Your task to perform on an android device: turn vacation reply on in the gmail app Image 0: 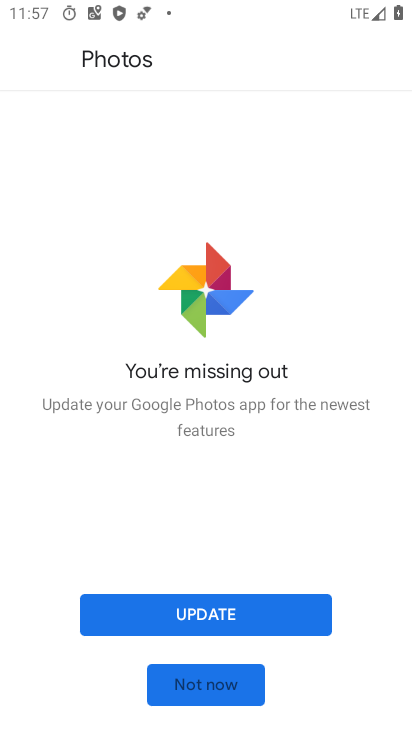
Step 0: press home button
Your task to perform on an android device: turn vacation reply on in the gmail app Image 1: 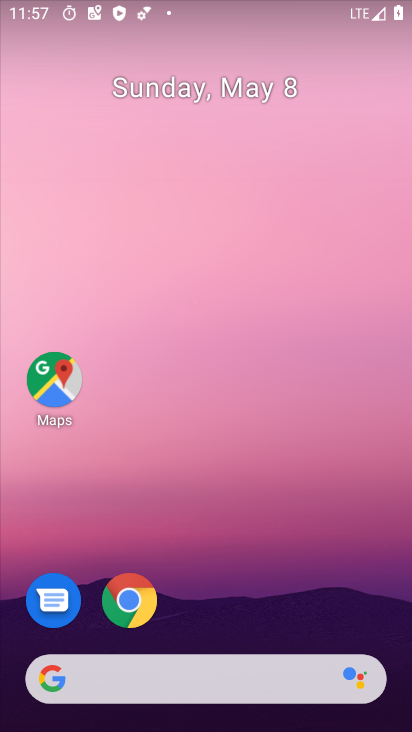
Step 1: drag from (192, 541) to (204, 168)
Your task to perform on an android device: turn vacation reply on in the gmail app Image 2: 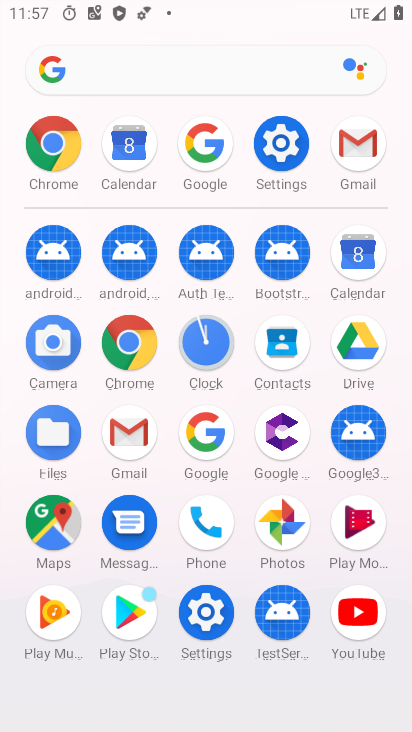
Step 2: click (110, 460)
Your task to perform on an android device: turn vacation reply on in the gmail app Image 3: 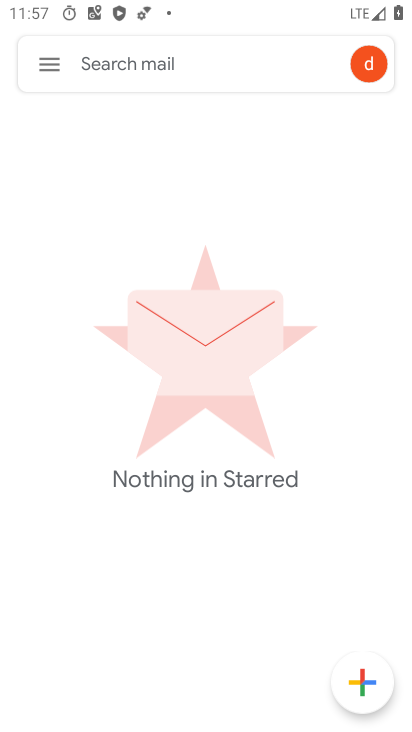
Step 3: click (48, 76)
Your task to perform on an android device: turn vacation reply on in the gmail app Image 4: 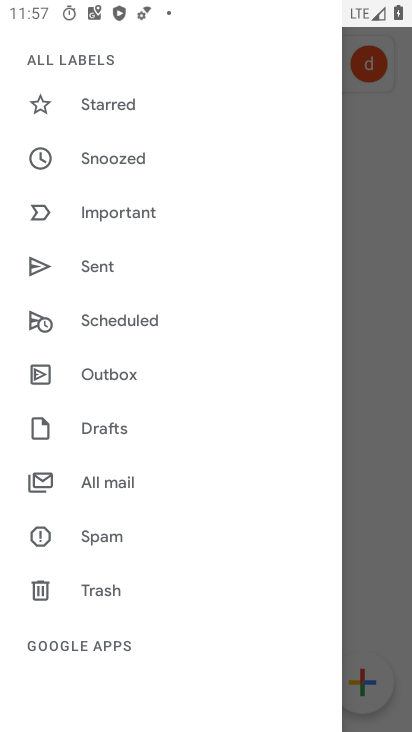
Step 4: drag from (131, 565) to (116, 267)
Your task to perform on an android device: turn vacation reply on in the gmail app Image 5: 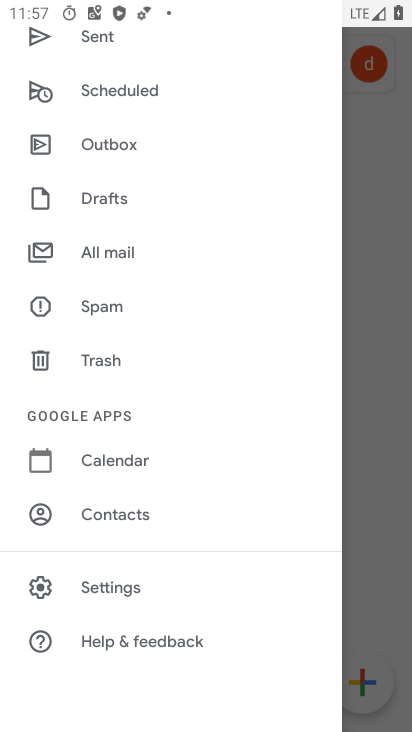
Step 5: click (113, 597)
Your task to perform on an android device: turn vacation reply on in the gmail app Image 6: 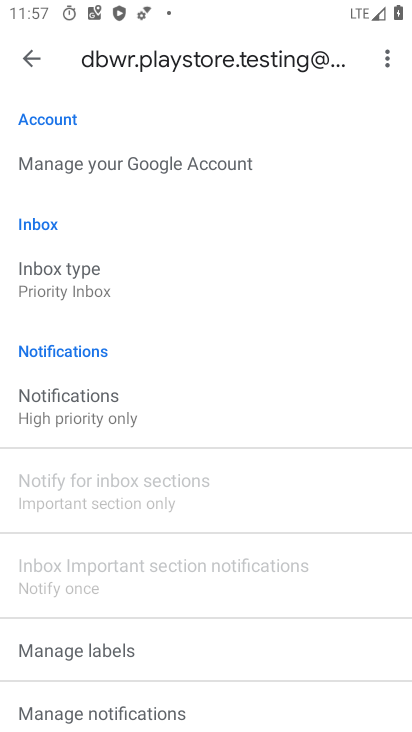
Step 6: drag from (175, 500) to (185, 215)
Your task to perform on an android device: turn vacation reply on in the gmail app Image 7: 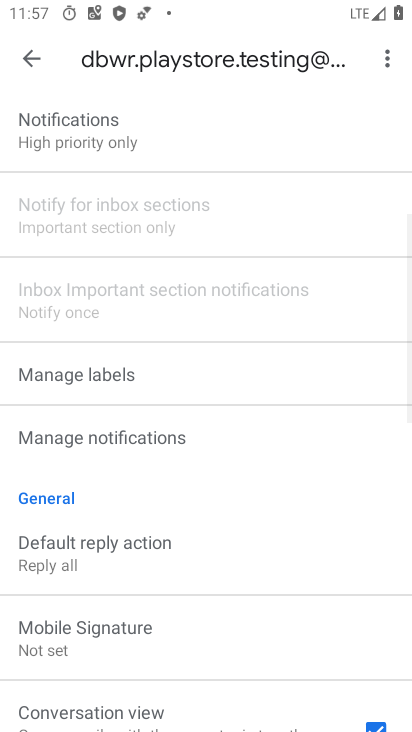
Step 7: drag from (191, 593) to (161, 180)
Your task to perform on an android device: turn vacation reply on in the gmail app Image 8: 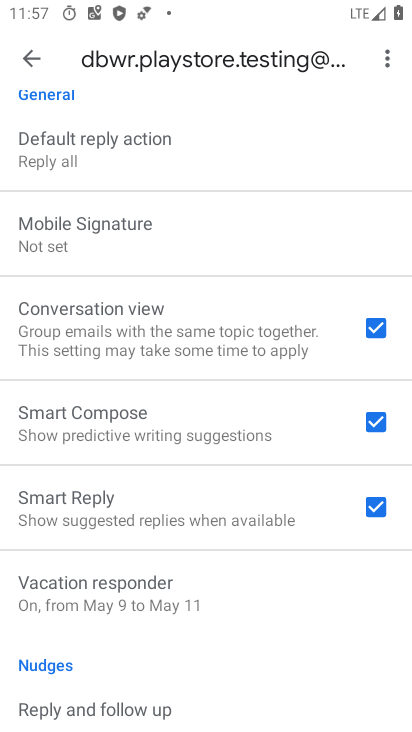
Step 8: click (222, 601)
Your task to perform on an android device: turn vacation reply on in the gmail app Image 9: 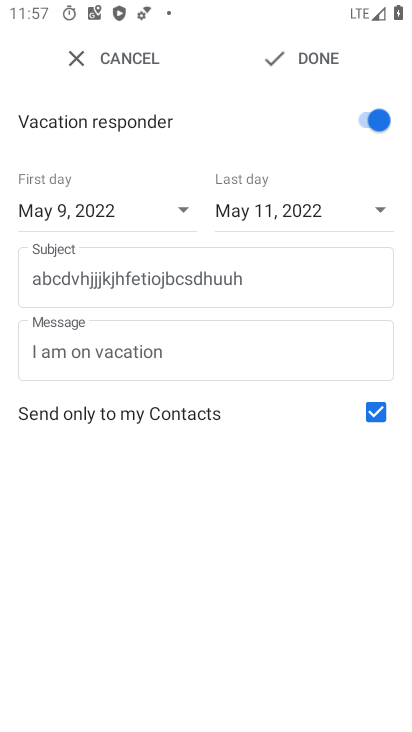
Step 9: click (301, 52)
Your task to perform on an android device: turn vacation reply on in the gmail app Image 10: 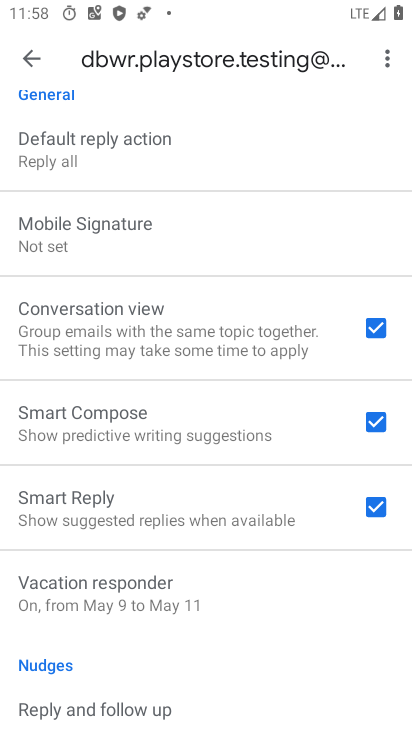
Step 10: task complete